Your task to perform on an android device: Open maps Image 0: 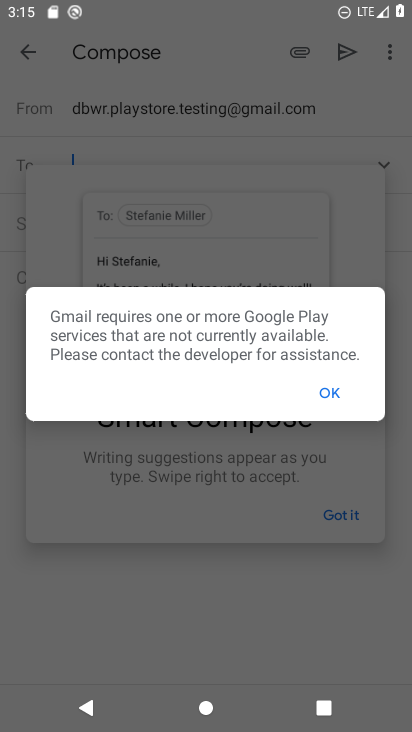
Step 0: press home button
Your task to perform on an android device: Open maps Image 1: 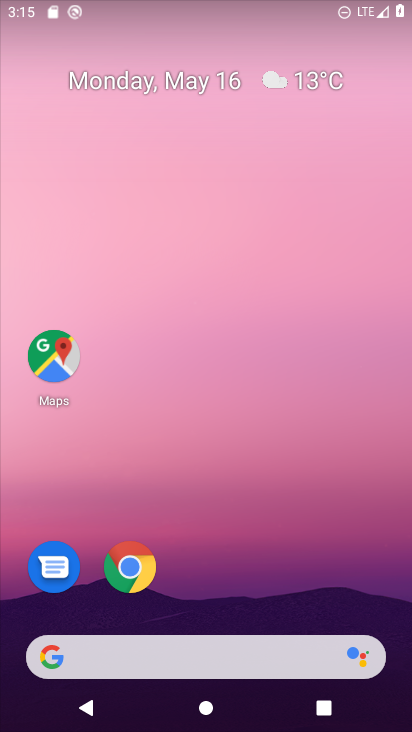
Step 1: click (54, 343)
Your task to perform on an android device: Open maps Image 2: 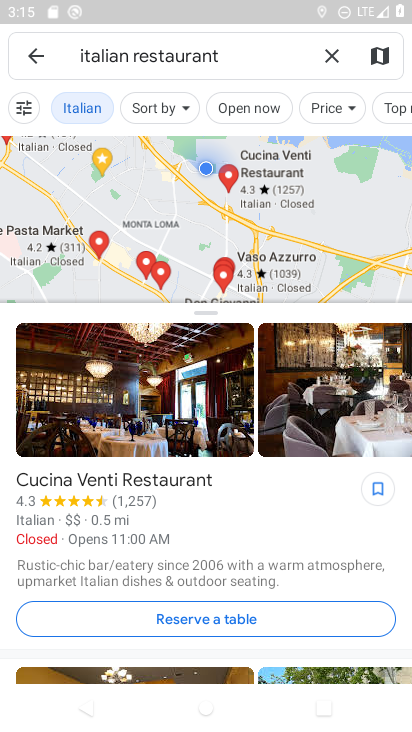
Step 2: click (38, 54)
Your task to perform on an android device: Open maps Image 3: 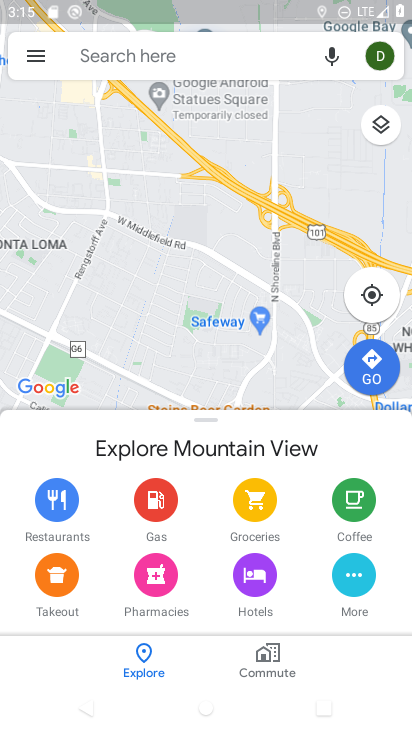
Step 3: task complete